Your task to perform on an android device: turn on improve location accuracy Image 0: 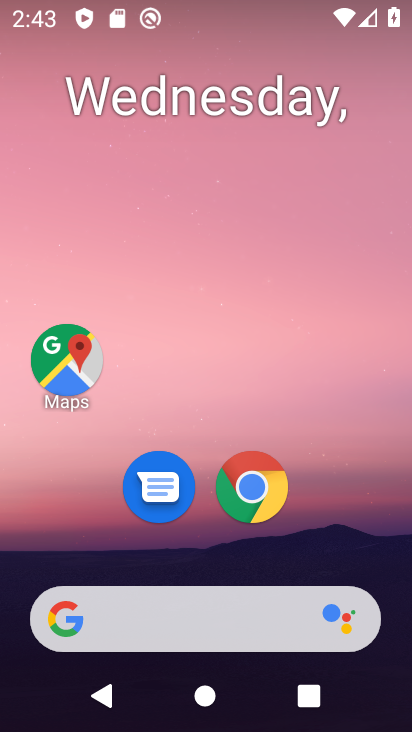
Step 0: click (286, 108)
Your task to perform on an android device: turn on improve location accuracy Image 1: 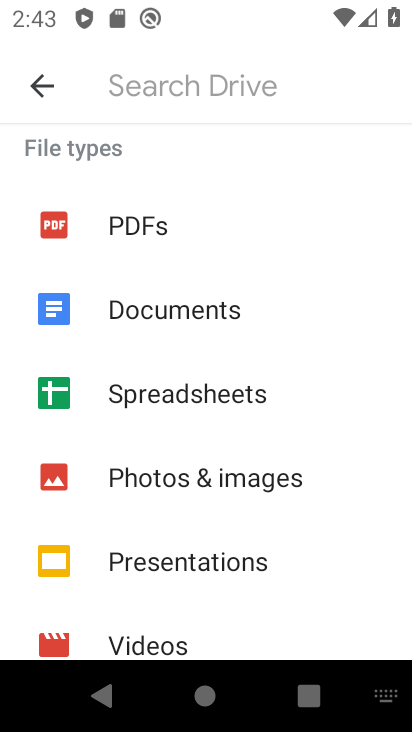
Step 1: press home button
Your task to perform on an android device: turn on improve location accuracy Image 2: 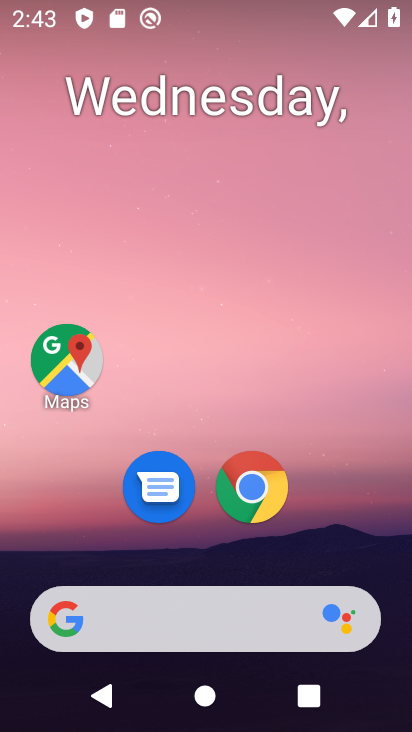
Step 2: drag from (215, 588) to (277, 85)
Your task to perform on an android device: turn on improve location accuracy Image 3: 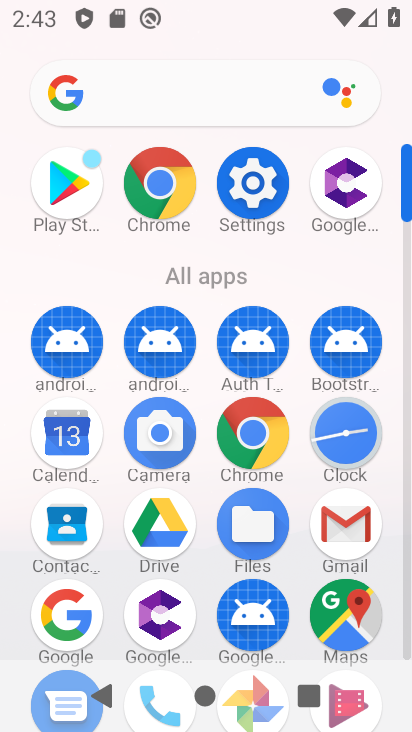
Step 3: drag from (221, 452) to (280, 122)
Your task to perform on an android device: turn on improve location accuracy Image 4: 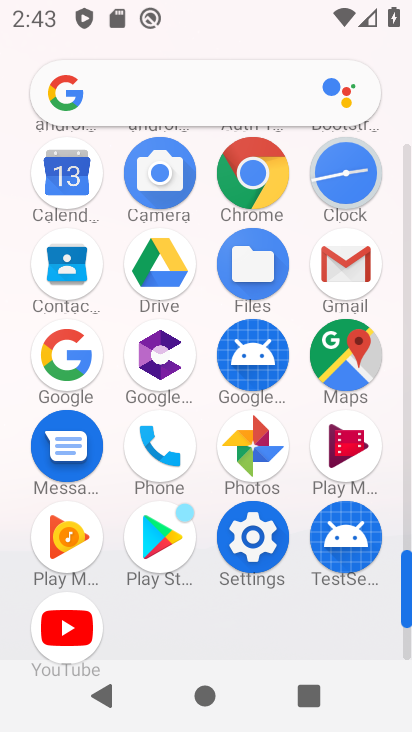
Step 4: click (257, 538)
Your task to perform on an android device: turn on improve location accuracy Image 5: 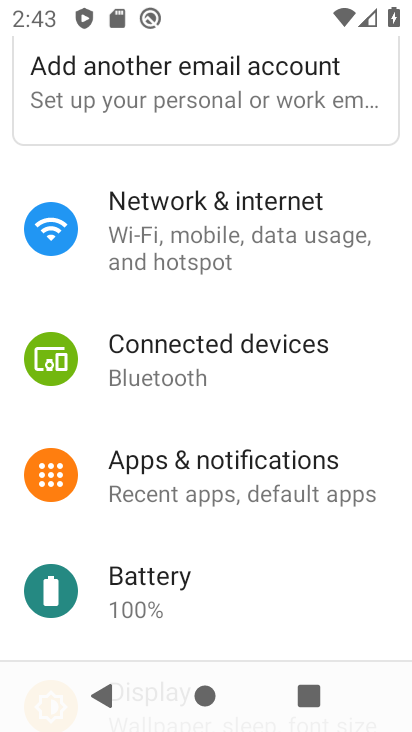
Step 5: drag from (172, 545) to (247, 107)
Your task to perform on an android device: turn on improve location accuracy Image 6: 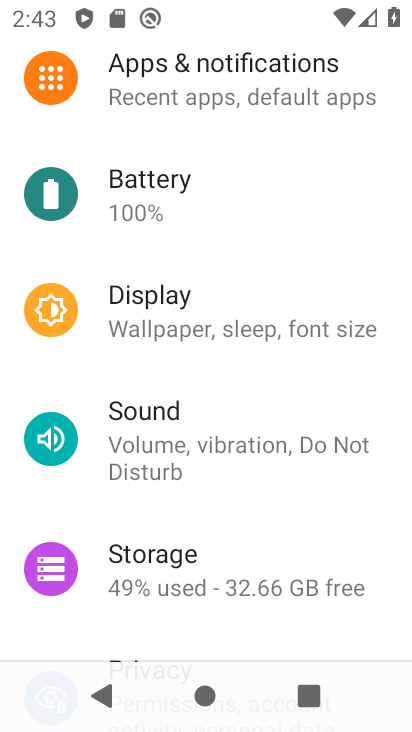
Step 6: drag from (217, 514) to (255, 285)
Your task to perform on an android device: turn on improve location accuracy Image 7: 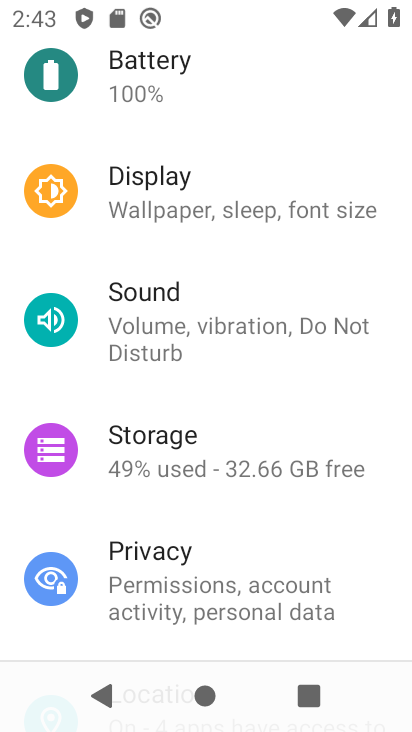
Step 7: drag from (227, 509) to (236, 128)
Your task to perform on an android device: turn on improve location accuracy Image 8: 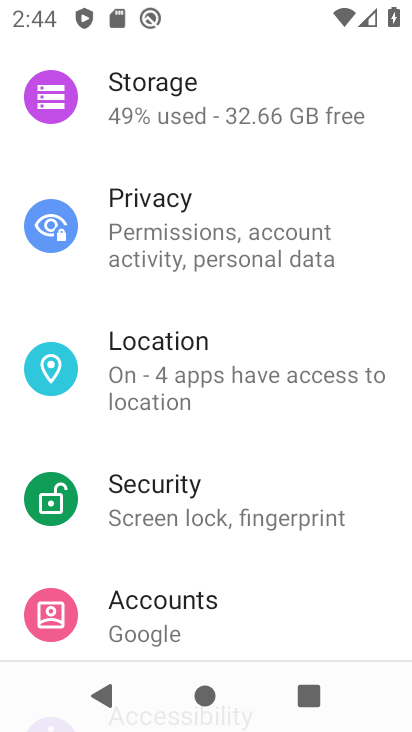
Step 8: drag from (215, 548) to (257, 224)
Your task to perform on an android device: turn on improve location accuracy Image 9: 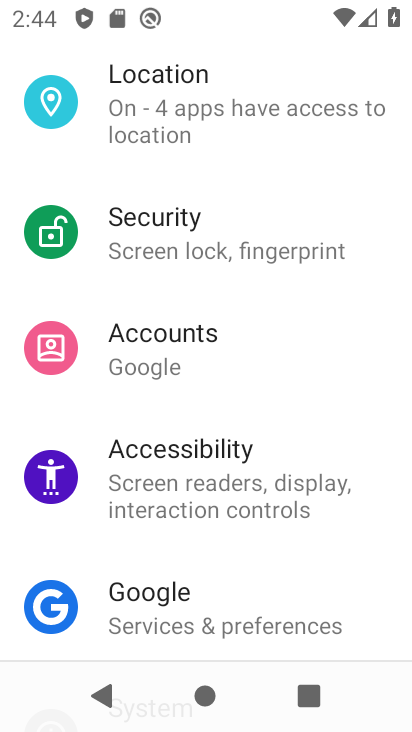
Step 9: drag from (218, 465) to (154, 541)
Your task to perform on an android device: turn on improve location accuracy Image 10: 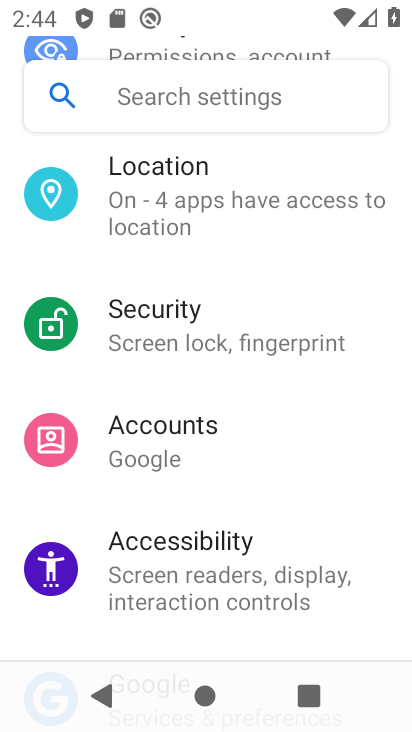
Step 10: drag from (212, 333) to (190, 604)
Your task to perform on an android device: turn on improve location accuracy Image 11: 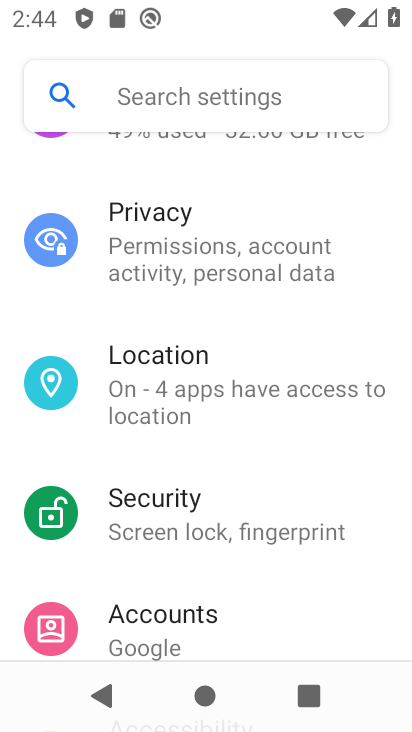
Step 11: click (214, 386)
Your task to perform on an android device: turn on improve location accuracy Image 12: 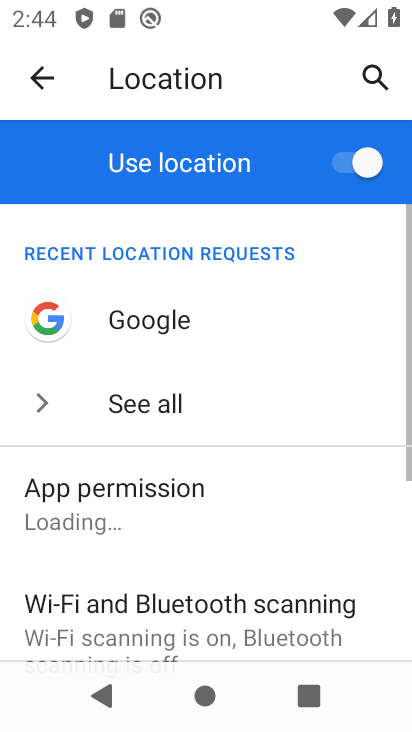
Step 12: drag from (260, 558) to (286, 150)
Your task to perform on an android device: turn on improve location accuracy Image 13: 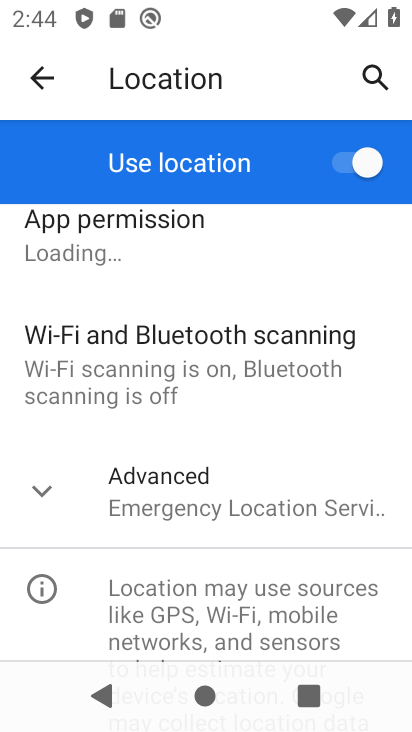
Step 13: click (221, 504)
Your task to perform on an android device: turn on improve location accuracy Image 14: 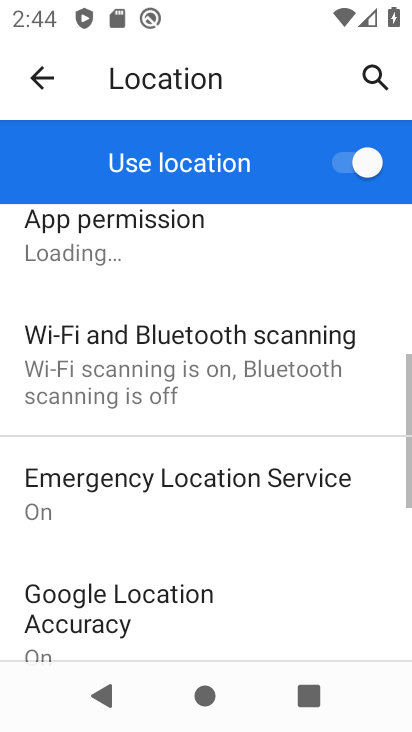
Step 14: drag from (250, 607) to (288, 236)
Your task to perform on an android device: turn on improve location accuracy Image 15: 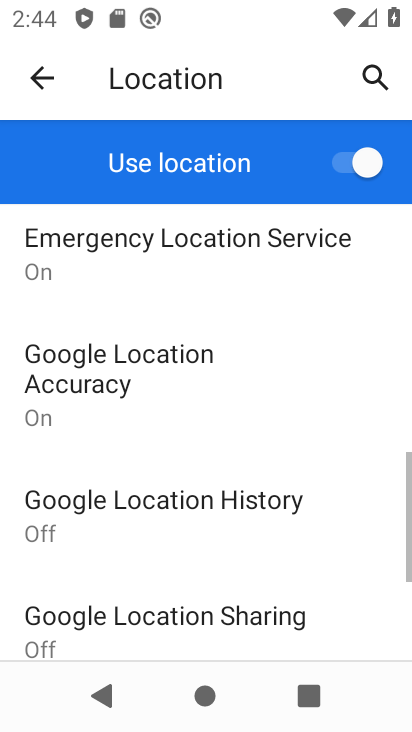
Step 15: click (198, 384)
Your task to perform on an android device: turn on improve location accuracy Image 16: 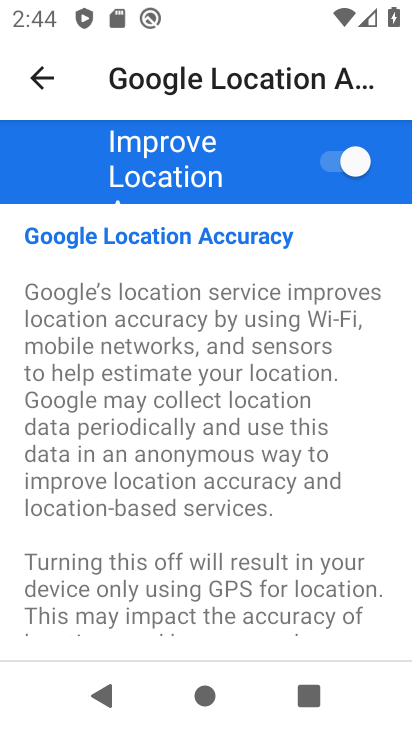
Step 16: task complete